Your task to perform on an android device: open app "Cash App" Image 0: 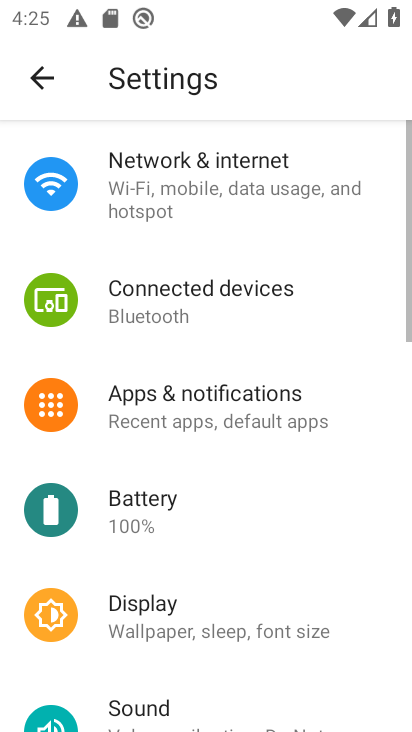
Step 0: press home button
Your task to perform on an android device: open app "Cash App" Image 1: 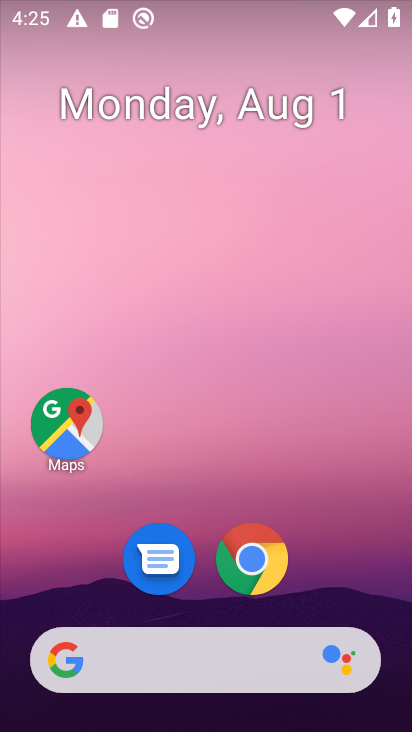
Step 1: drag from (180, 604) to (231, 0)
Your task to perform on an android device: open app "Cash App" Image 2: 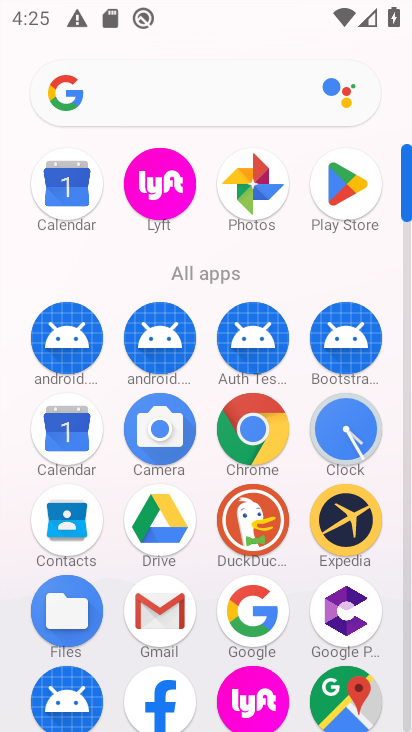
Step 2: click (346, 199)
Your task to perform on an android device: open app "Cash App" Image 3: 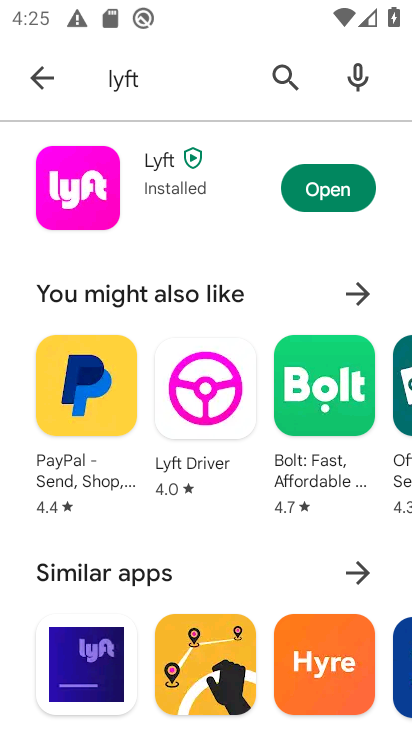
Step 3: click (161, 74)
Your task to perform on an android device: open app "Cash App" Image 4: 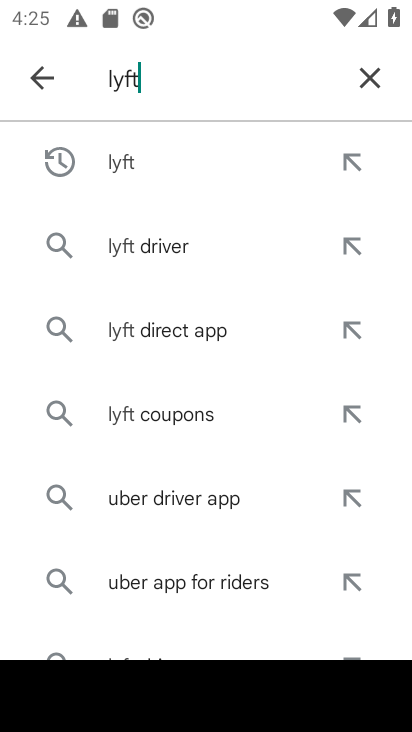
Step 4: click (374, 74)
Your task to perform on an android device: open app "Cash App" Image 5: 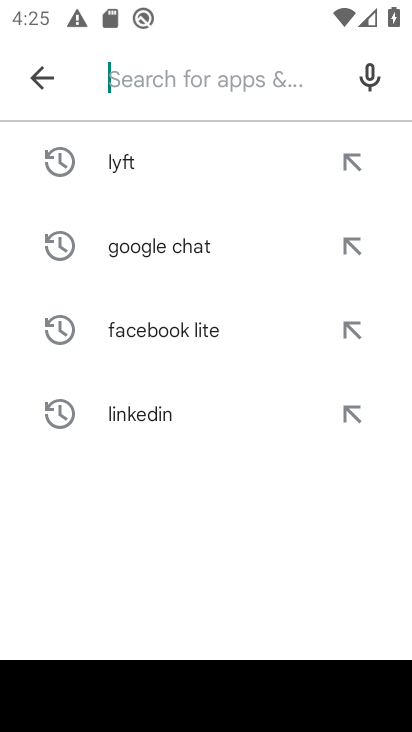
Step 5: type "CAsh App"
Your task to perform on an android device: open app "Cash App" Image 6: 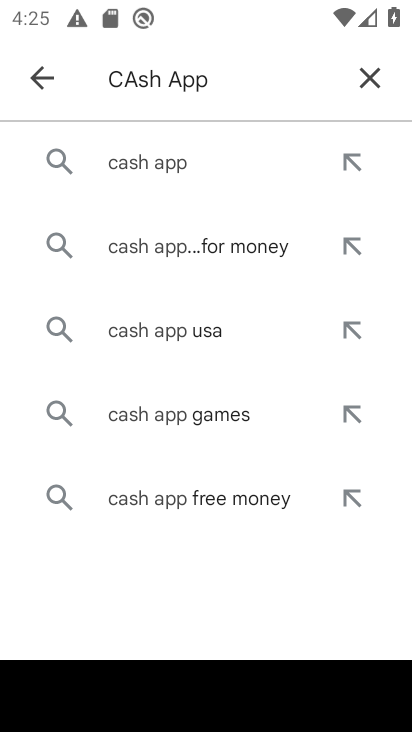
Step 6: click (135, 156)
Your task to perform on an android device: open app "Cash App" Image 7: 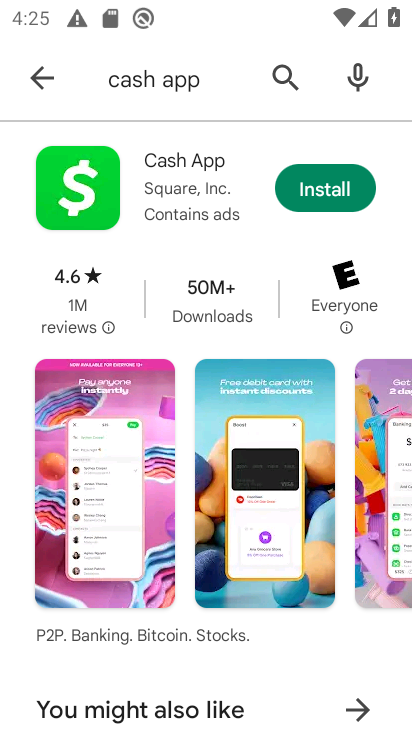
Step 7: task complete